Your task to perform on an android device: Search for Italian restaurants on Maps Image 0: 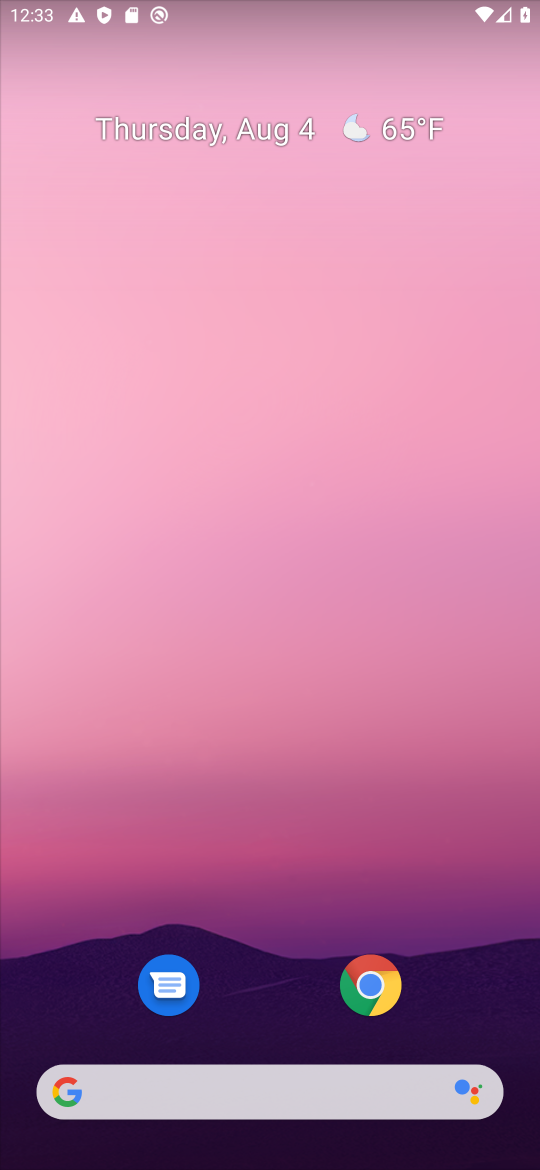
Step 0: drag from (260, 924) to (214, 134)
Your task to perform on an android device: Search for Italian restaurants on Maps Image 1: 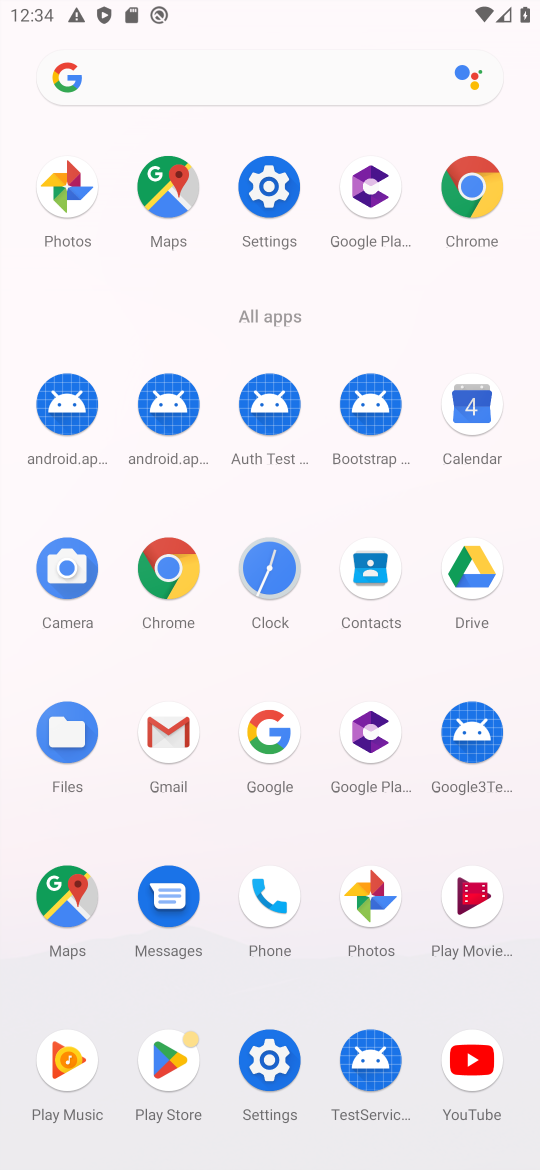
Step 1: click (166, 188)
Your task to perform on an android device: Search for Italian restaurants on Maps Image 2: 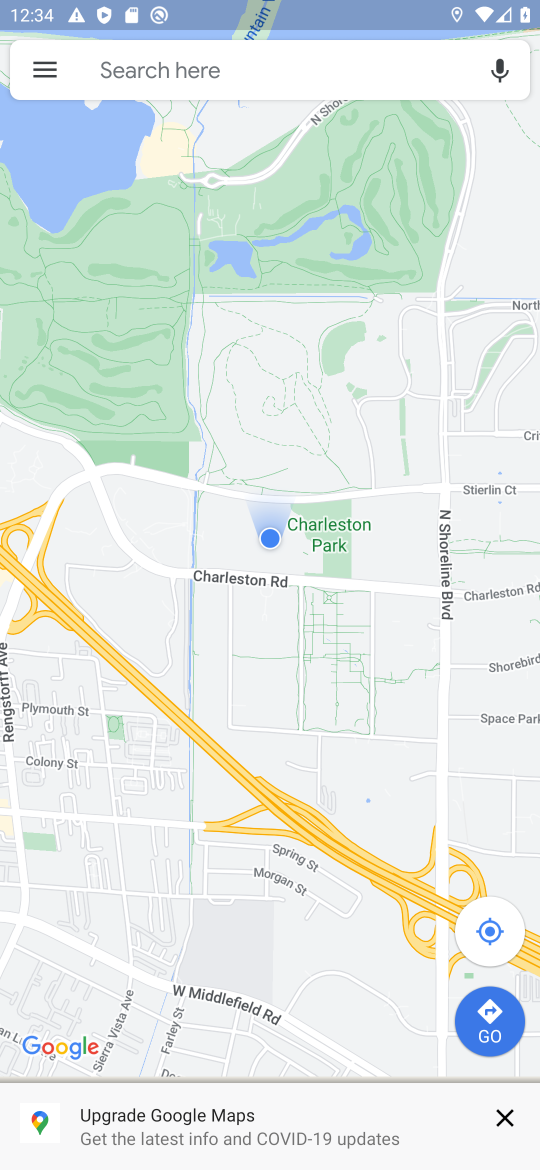
Step 2: click (155, 59)
Your task to perform on an android device: Search for Italian restaurants on Maps Image 3: 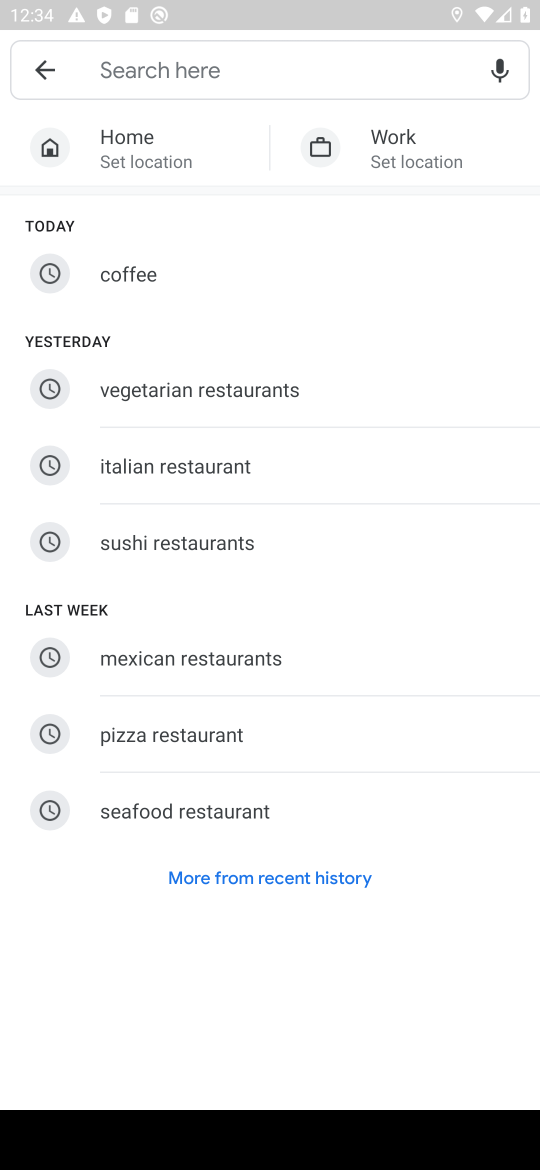
Step 3: click (169, 460)
Your task to perform on an android device: Search for Italian restaurants on Maps Image 4: 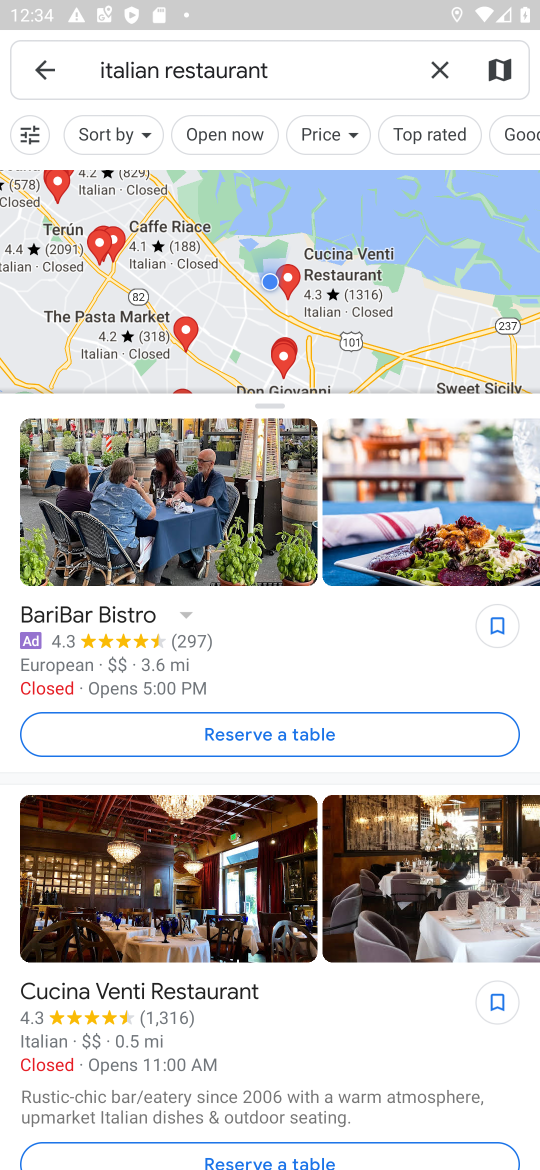
Step 4: task complete